Your task to perform on an android device: open sync settings in chrome Image 0: 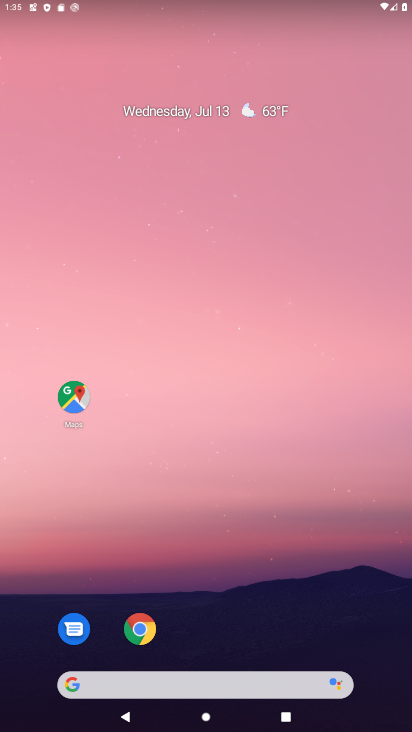
Step 0: drag from (173, 598) to (178, 196)
Your task to perform on an android device: open sync settings in chrome Image 1: 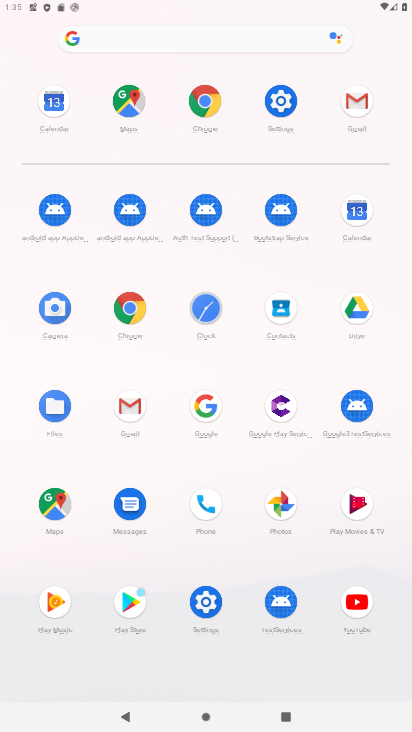
Step 1: click (132, 299)
Your task to perform on an android device: open sync settings in chrome Image 2: 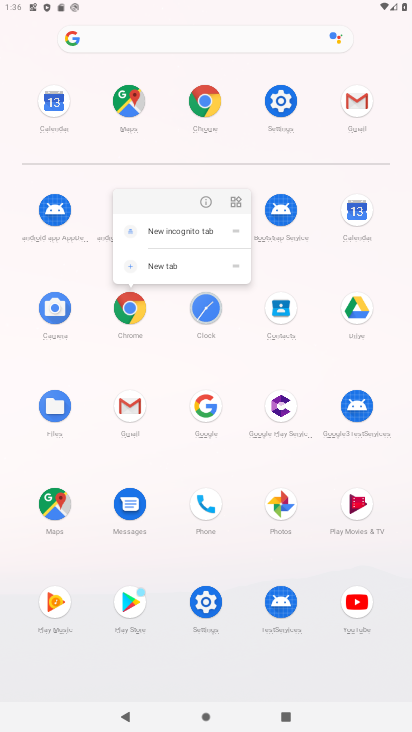
Step 2: click (208, 198)
Your task to perform on an android device: open sync settings in chrome Image 3: 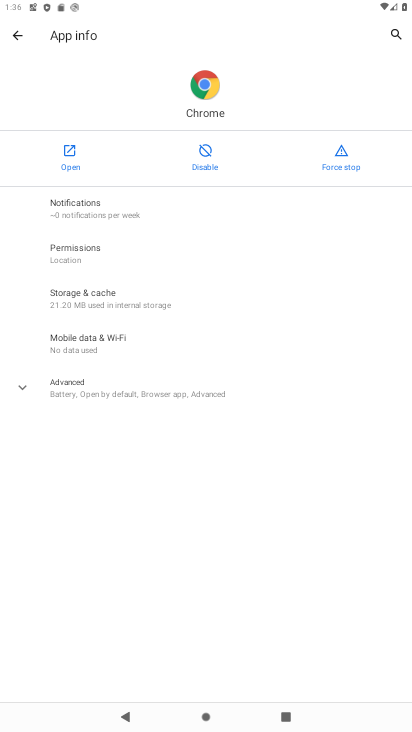
Step 3: click (73, 150)
Your task to perform on an android device: open sync settings in chrome Image 4: 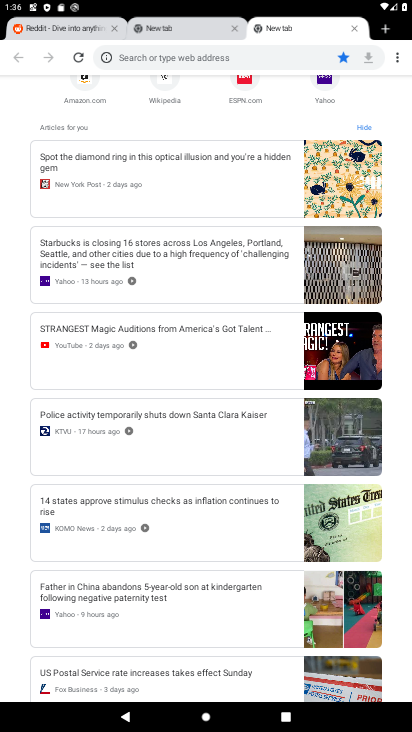
Step 4: drag from (134, 584) to (144, 274)
Your task to perform on an android device: open sync settings in chrome Image 5: 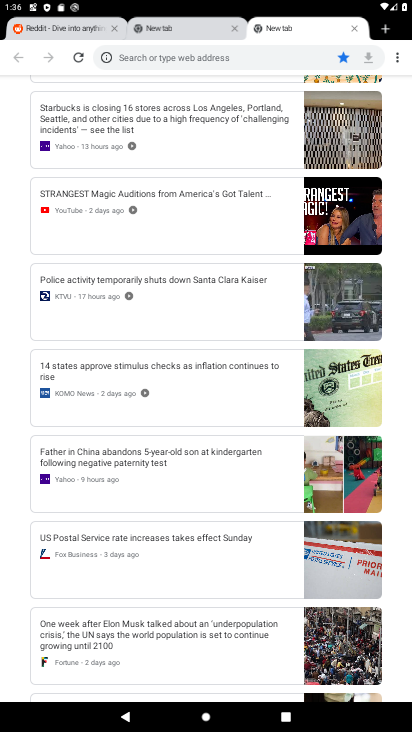
Step 5: drag from (119, 129) to (160, 515)
Your task to perform on an android device: open sync settings in chrome Image 6: 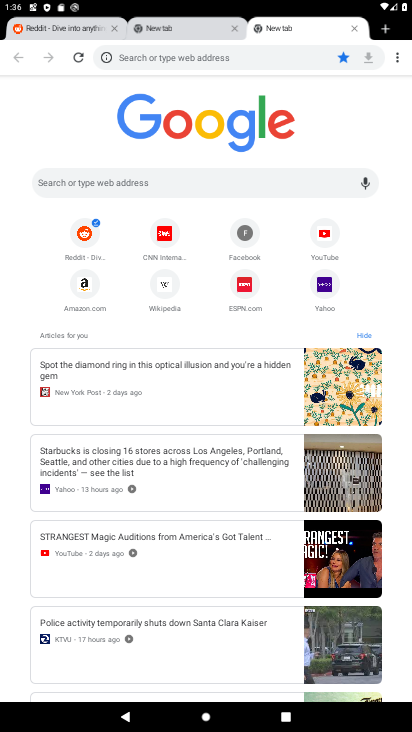
Step 6: click (399, 62)
Your task to perform on an android device: open sync settings in chrome Image 7: 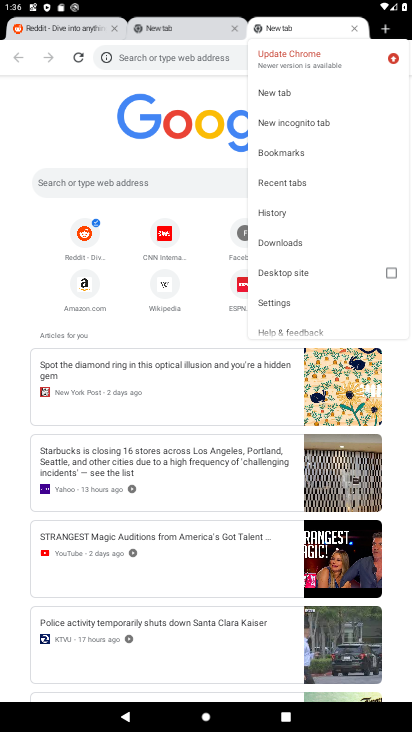
Step 7: click (287, 297)
Your task to perform on an android device: open sync settings in chrome Image 8: 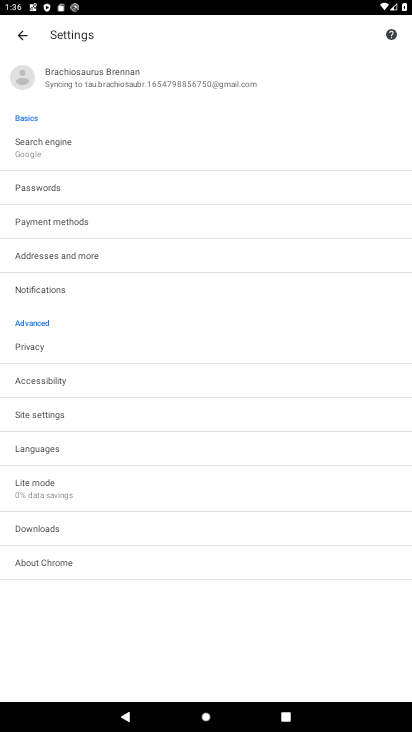
Step 8: drag from (165, 666) to (245, 270)
Your task to perform on an android device: open sync settings in chrome Image 9: 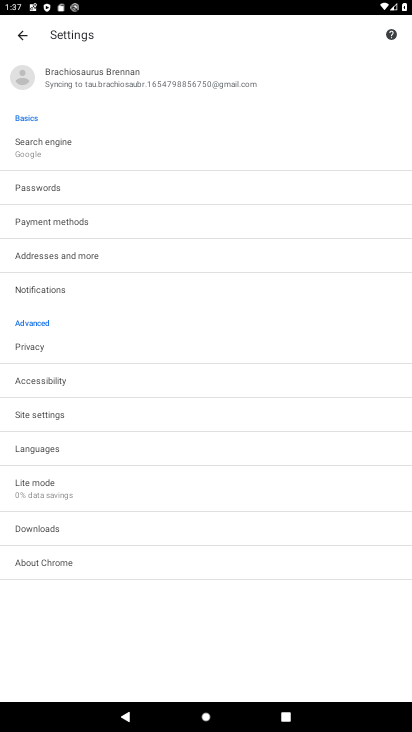
Step 9: click (83, 417)
Your task to perform on an android device: open sync settings in chrome Image 10: 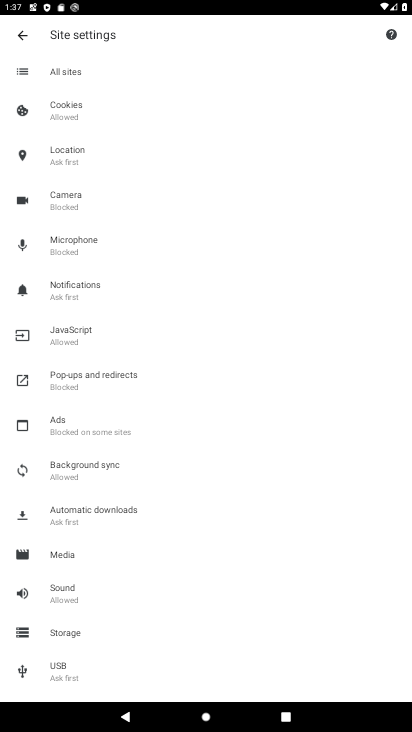
Step 10: drag from (113, 195) to (198, 628)
Your task to perform on an android device: open sync settings in chrome Image 11: 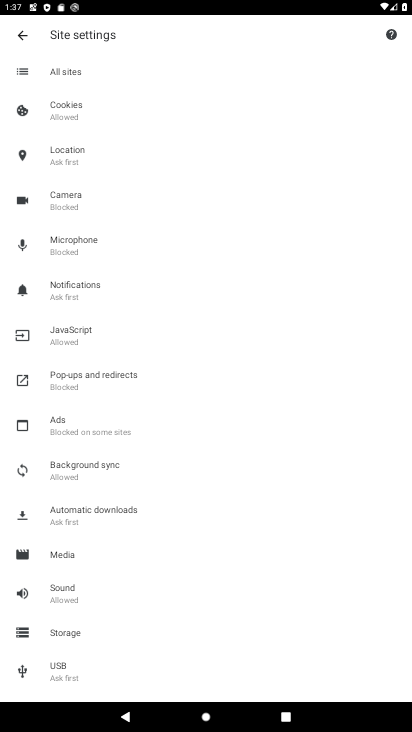
Step 11: click (137, 471)
Your task to perform on an android device: open sync settings in chrome Image 12: 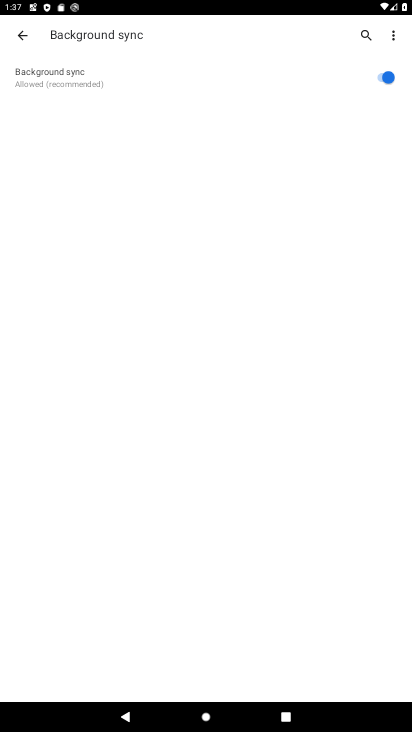
Step 12: task complete